Your task to perform on an android device: Go to notification settings Image 0: 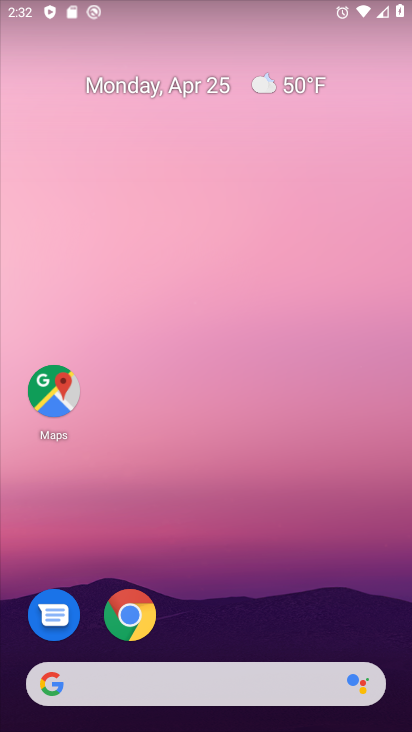
Step 0: drag from (259, 582) to (264, 43)
Your task to perform on an android device: Go to notification settings Image 1: 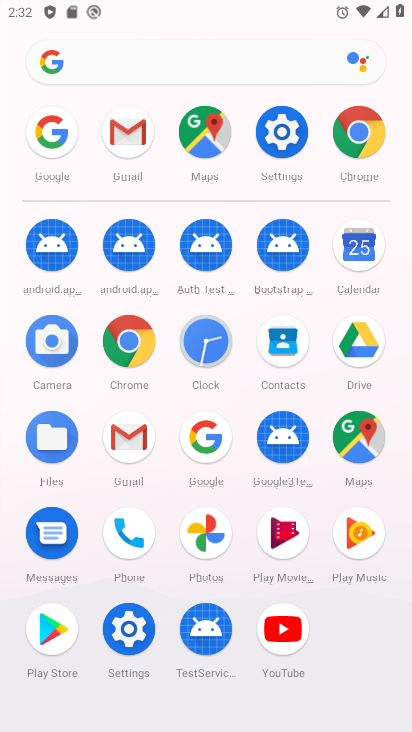
Step 1: click (281, 140)
Your task to perform on an android device: Go to notification settings Image 2: 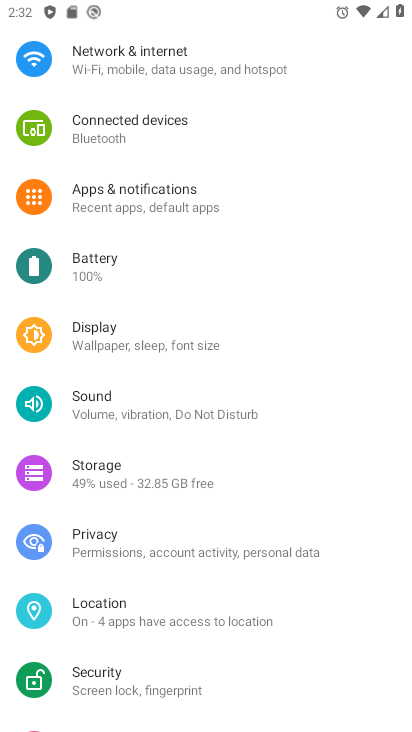
Step 2: drag from (205, 249) to (217, 318)
Your task to perform on an android device: Go to notification settings Image 3: 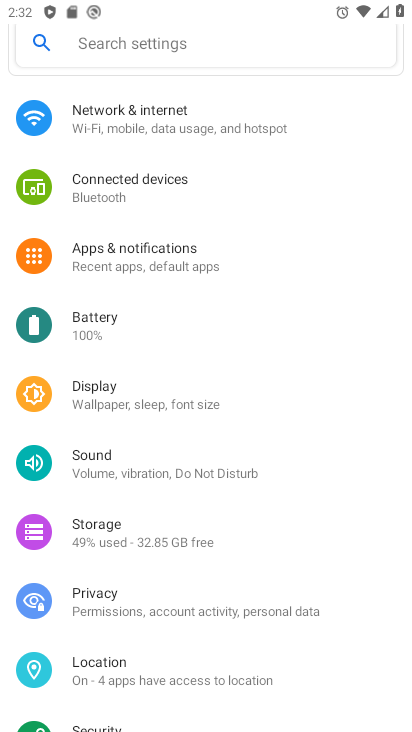
Step 3: click (182, 252)
Your task to perform on an android device: Go to notification settings Image 4: 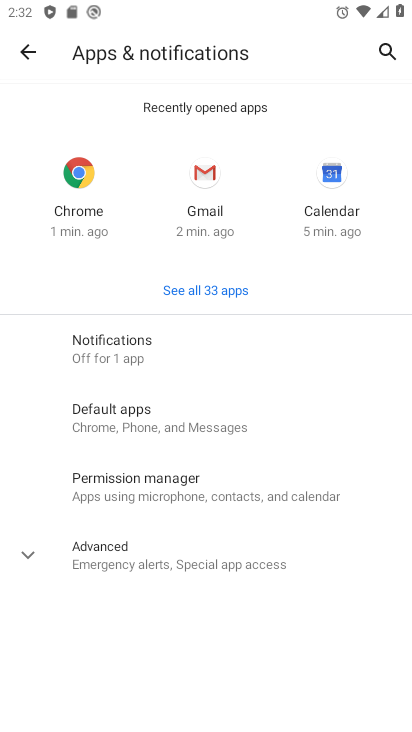
Step 4: click (110, 337)
Your task to perform on an android device: Go to notification settings Image 5: 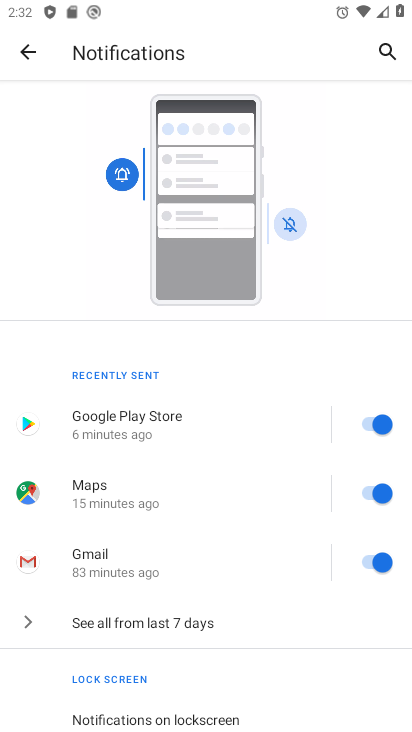
Step 5: task complete